Your task to perform on an android device: check out phone information Image 0: 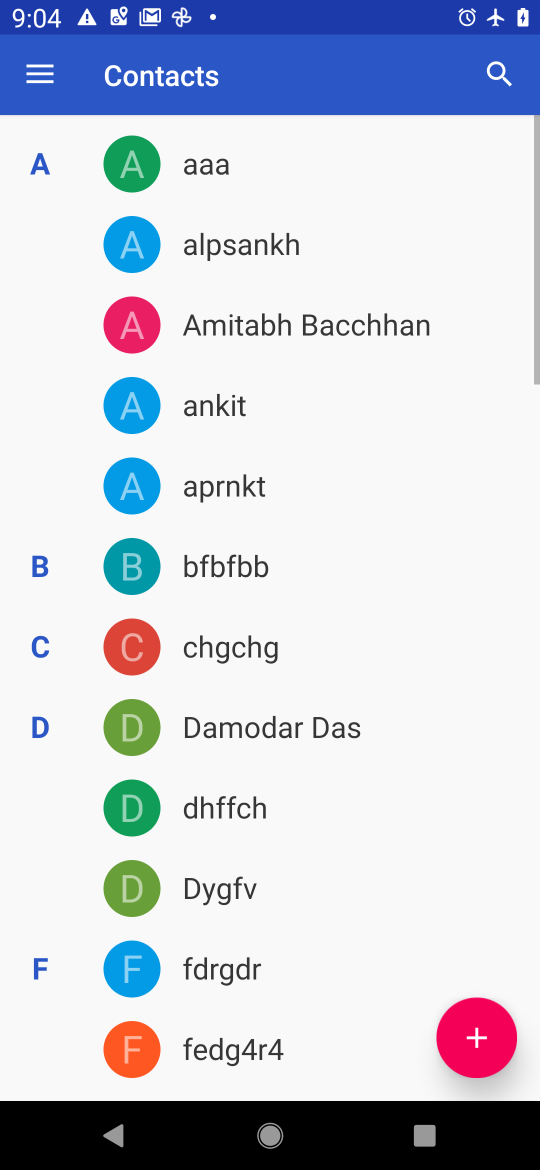
Step 0: press home button
Your task to perform on an android device: check out phone information Image 1: 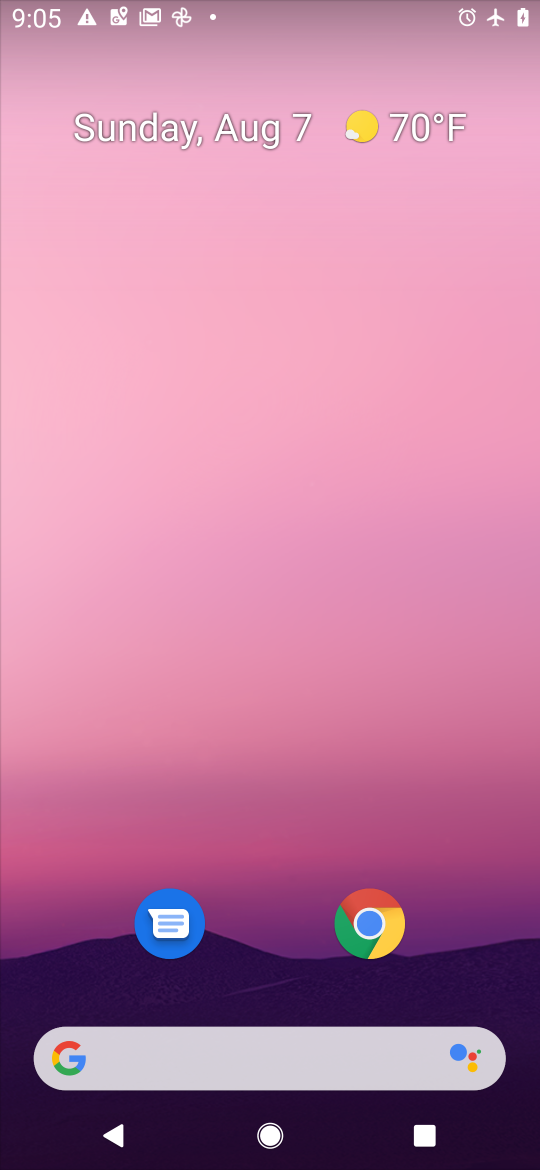
Step 1: drag from (495, 990) to (218, 66)
Your task to perform on an android device: check out phone information Image 2: 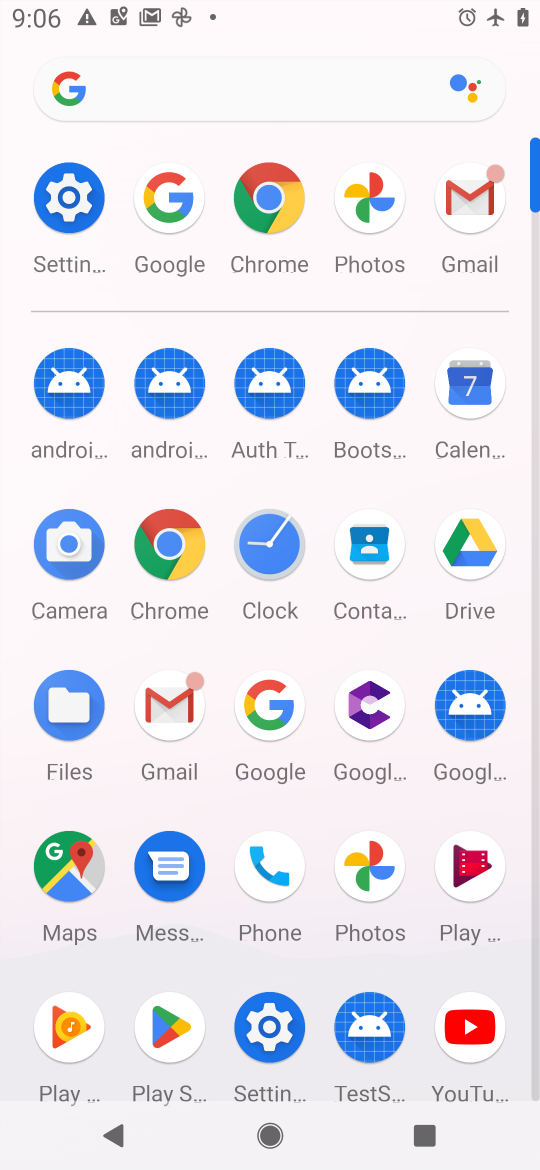
Step 2: click (259, 1045)
Your task to perform on an android device: check out phone information Image 3: 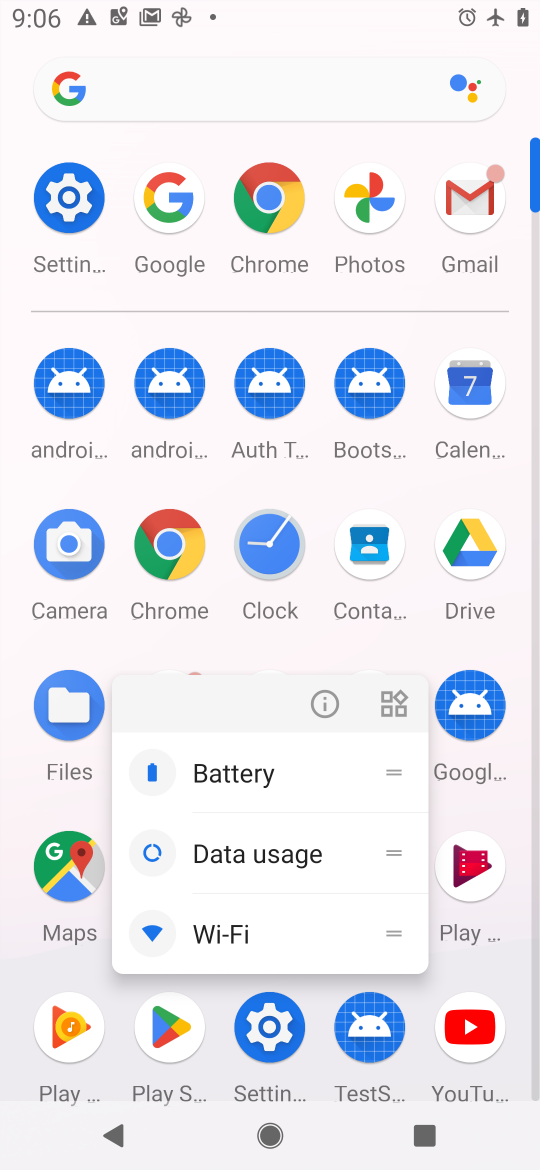
Step 3: click (259, 1045)
Your task to perform on an android device: check out phone information Image 4: 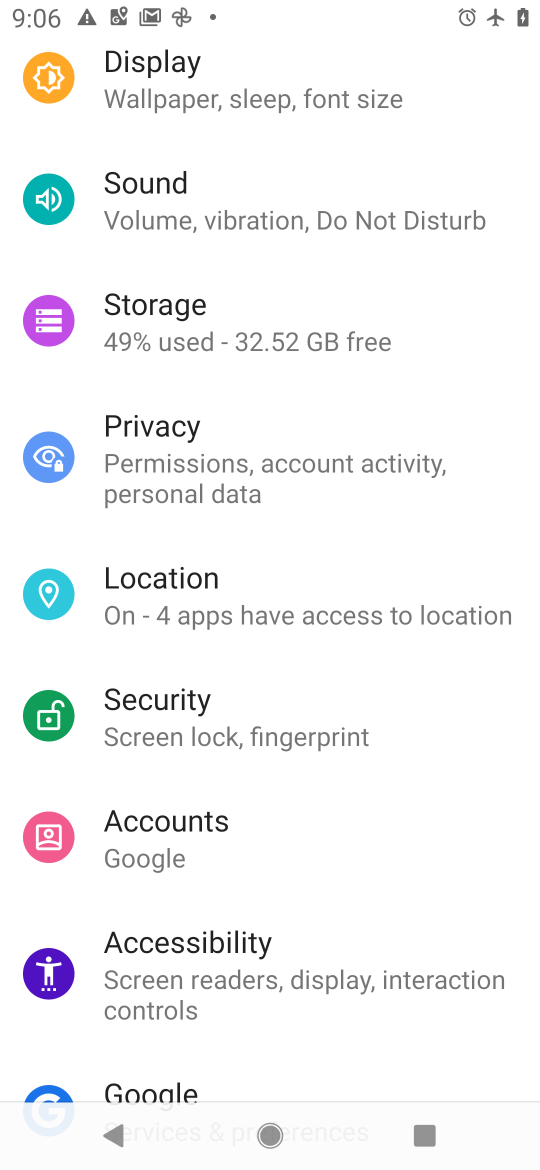
Step 4: task complete